Your task to perform on an android device: toggle show notifications on the lock screen Image 0: 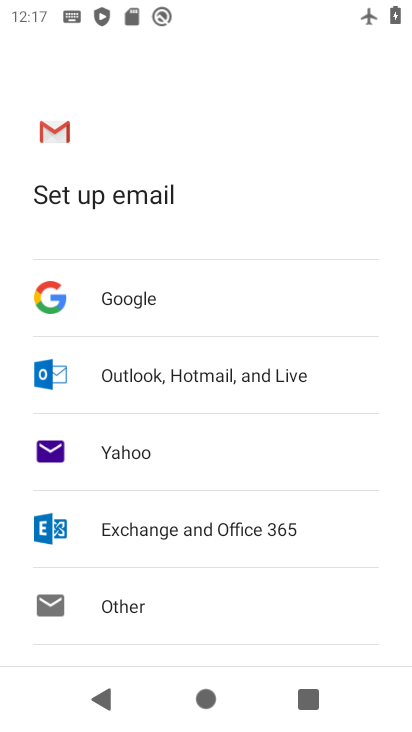
Step 0: press home button
Your task to perform on an android device: toggle show notifications on the lock screen Image 1: 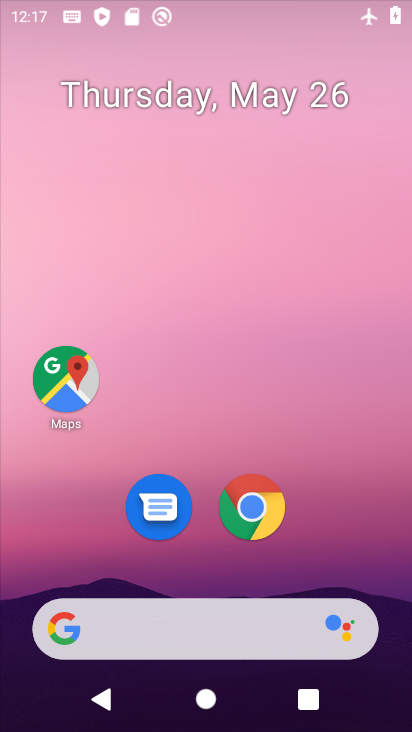
Step 1: drag from (213, 588) to (268, 278)
Your task to perform on an android device: toggle show notifications on the lock screen Image 2: 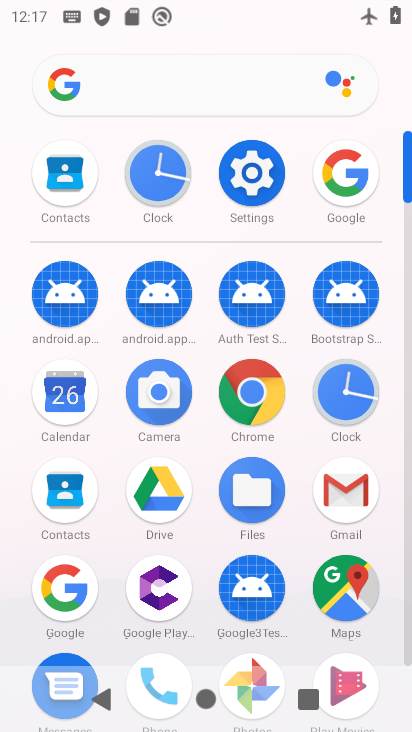
Step 2: click (243, 177)
Your task to perform on an android device: toggle show notifications on the lock screen Image 3: 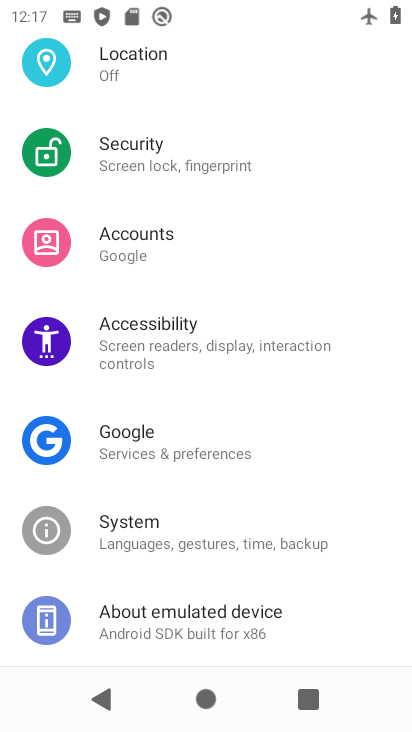
Step 3: drag from (243, 177) to (307, 592)
Your task to perform on an android device: toggle show notifications on the lock screen Image 4: 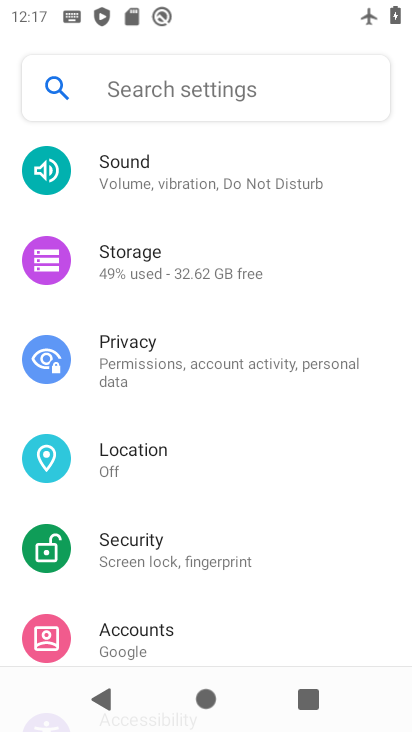
Step 4: drag from (254, 229) to (266, 551)
Your task to perform on an android device: toggle show notifications on the lock screen Image 5: 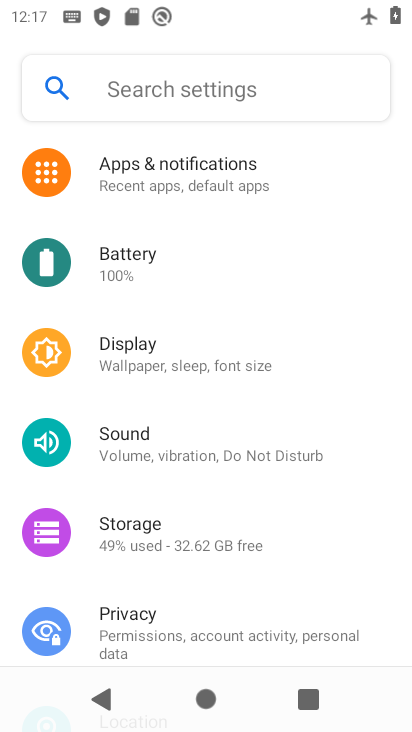
Step 5: click (216, 162)
Your task to perform on an android device: toggle show notifications on the lock screen Image 6: 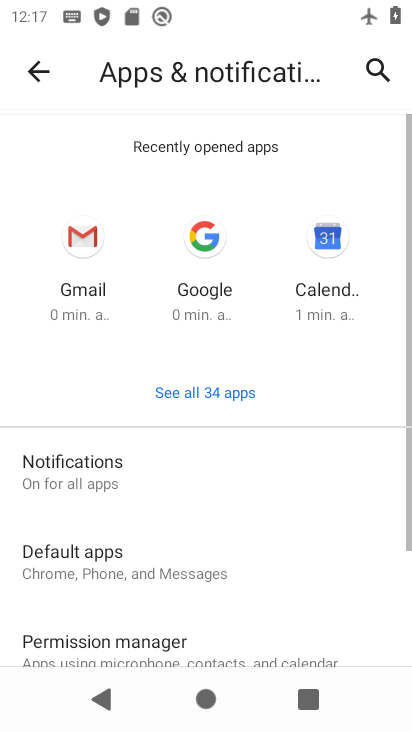
Step 6: click (142, 468)
Your task to perform on an android device: toggle show notifications on the lock screen Image 7: 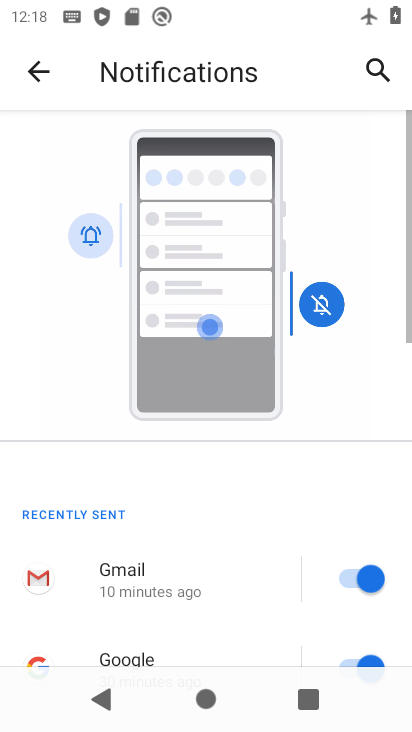
Step 7: drag from (203, 596) to (269, 238)
Your task to perform on an android device: toggle show notifications on the lock screen Image 8: 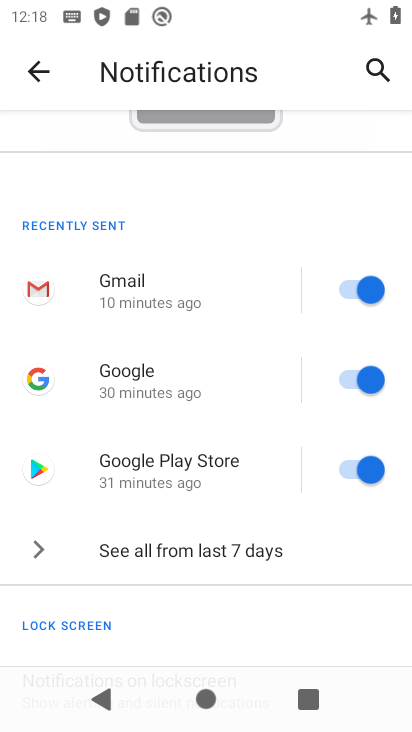
Step 8: drag from (260, 592) to (297, 315)
Your task to perform on an android device: toggle show notifications on the lock screen Image 9: 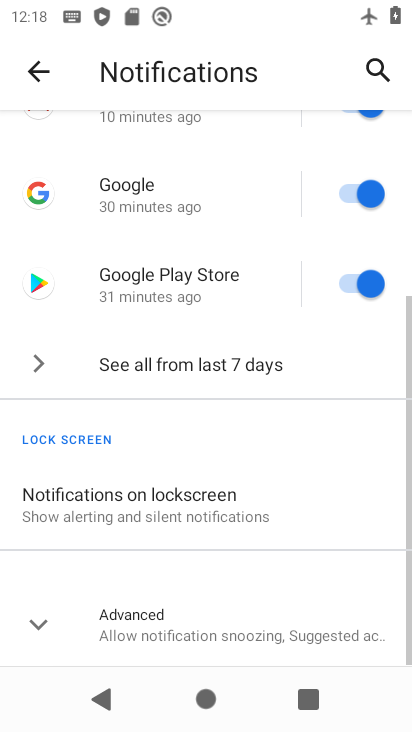
Step 9: click (274, 519)
Your task to perform on an android device: toggle show notifications on the lock screen Image 10: 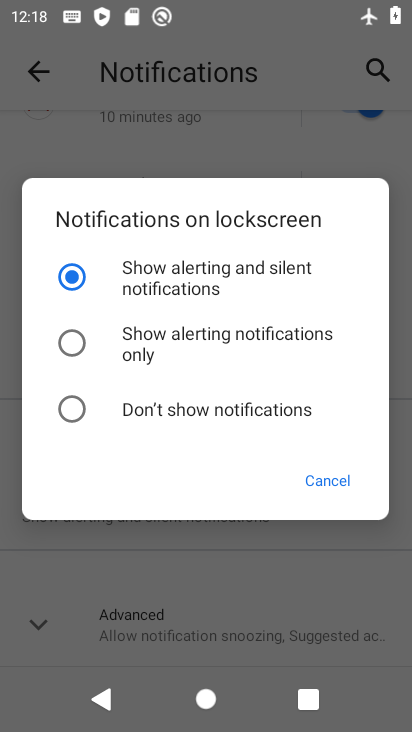
Step 10: click (203, 397)
Your task to perform on an android device: toggle show notifications on the lock screen Image 11: 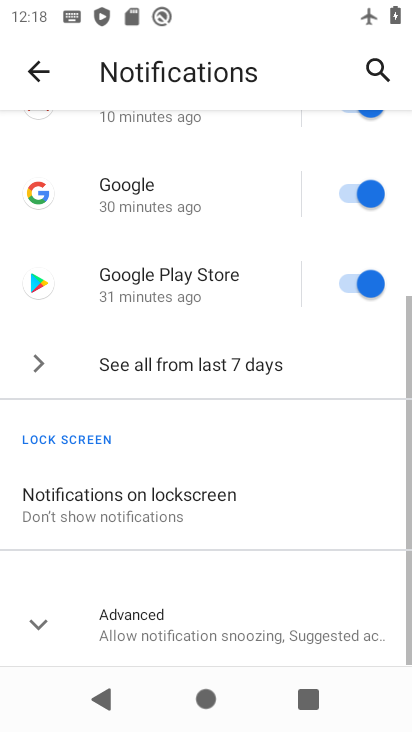
Step 11: task complete